Your task to perform on an android device: Open accessibility settings Image 0: 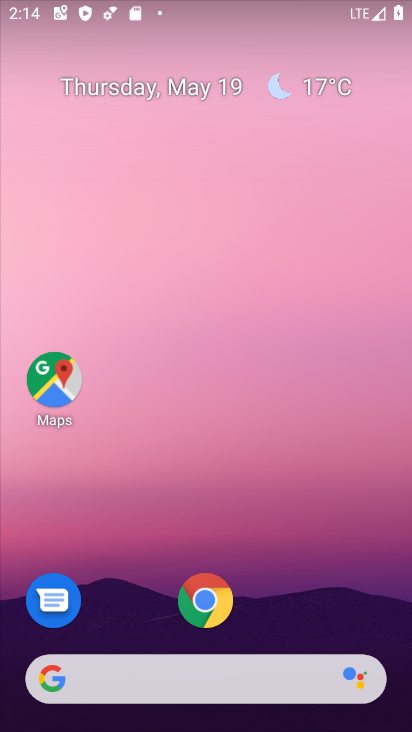
Step 0: drag from (324, 620) to (294, 174)
Your task to perform on an android device: Open accessibility settings Image 1: 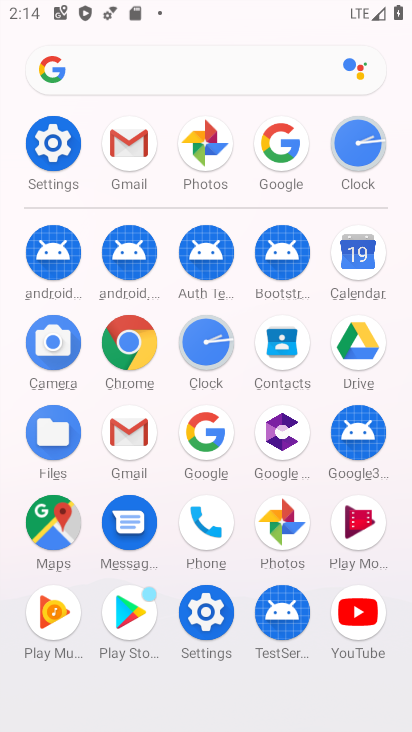
Step 1: click (202, 608)
Your task to perform on an android device: Open accessibility settings Image 2: 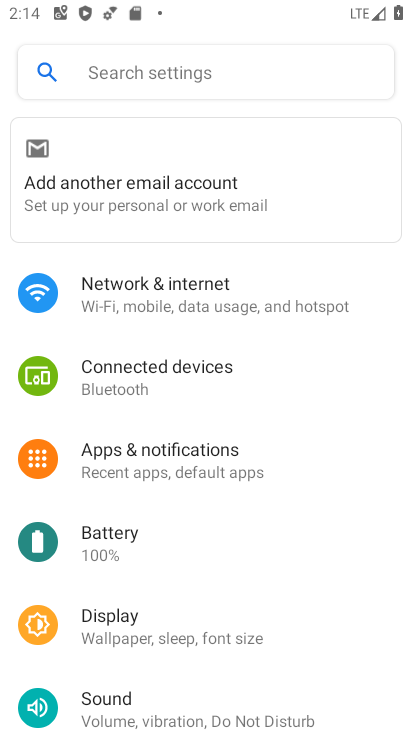
Step 2: drag from (279, 598) to (256, 290)
Your task to perform on an android device: Open accessibility settings Image 3: 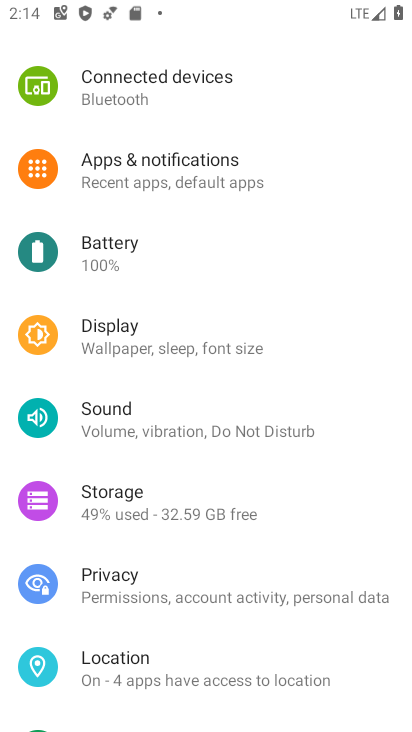
Step 3: drag from (224, 629) to (226, 345)
Your task to perform on an android device: Open accessibility settings Image 4: 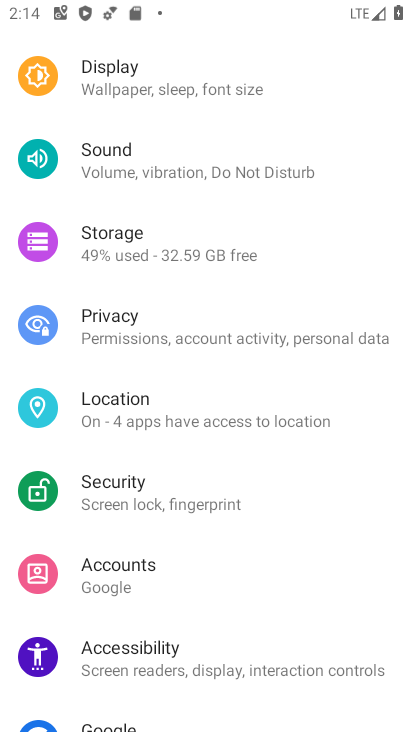
Step 4: click (173, 645)
Your task to perform on an android device: Open accessibility settings Image 5: 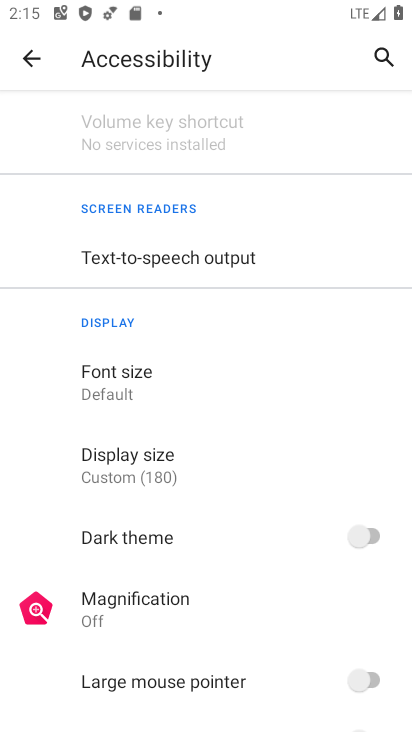
Step 5: task complete